Your task to perform on an android device: open chrome privacy settings Image 0: 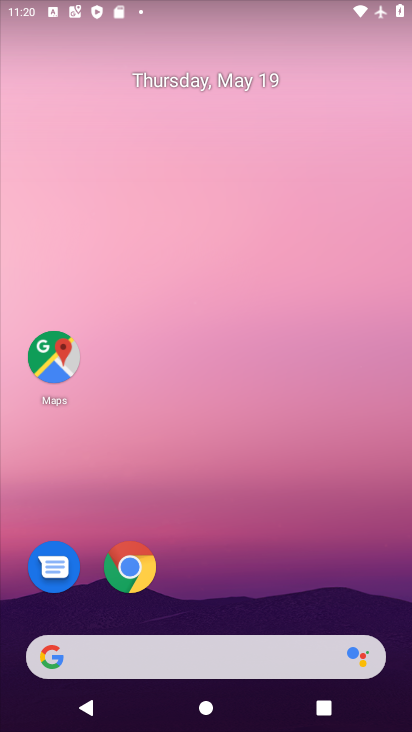
Step 0: click (131, 569)
Your task to perform on an android device: open chrome privacy settings Image 1: 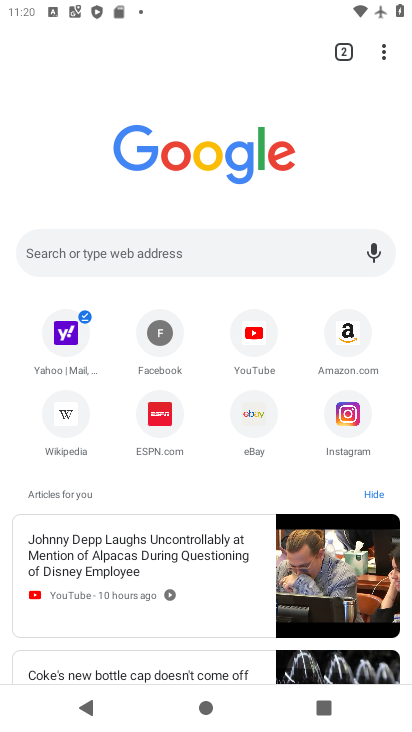
Step 1: click (382, 62)
Your task to perform on an android device: open chrome privacy settings Image 2: 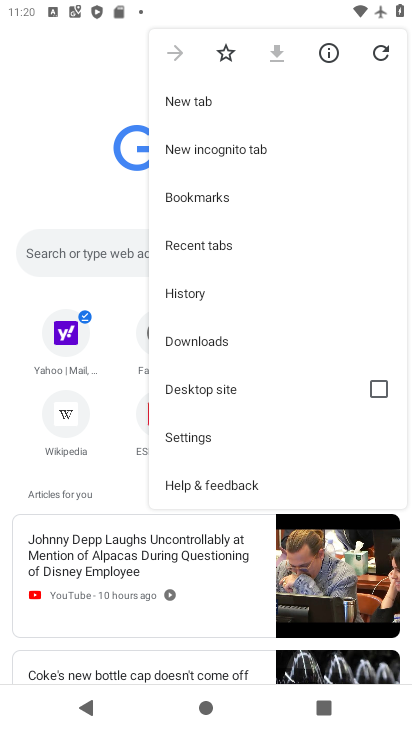
Step 2: click (194, 429)
Your task to perform on an android device: open chrome privacy settings Image 3: 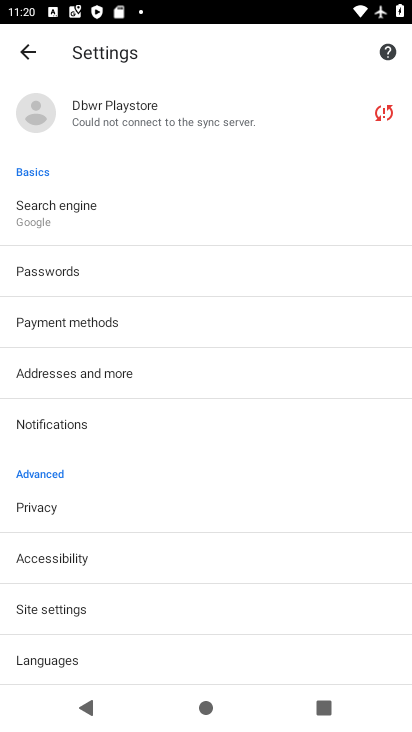
Step 3: click (48, 505)
Your task to perform on an android device: open chrome privacy settings Image 4: 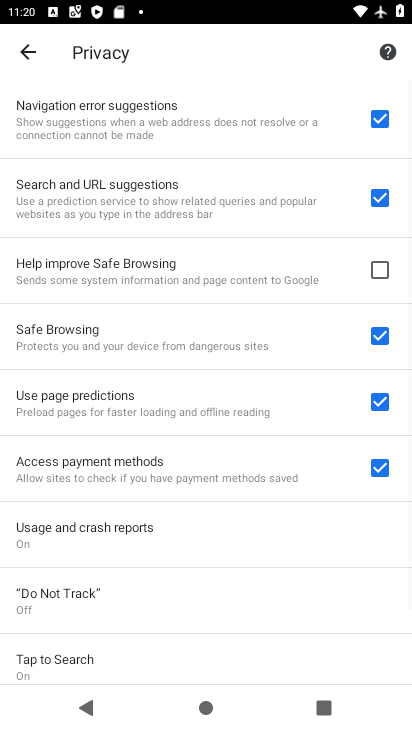
Step 4: task complete